Your task to perform on an android device: Do I have any events today? Image 0: 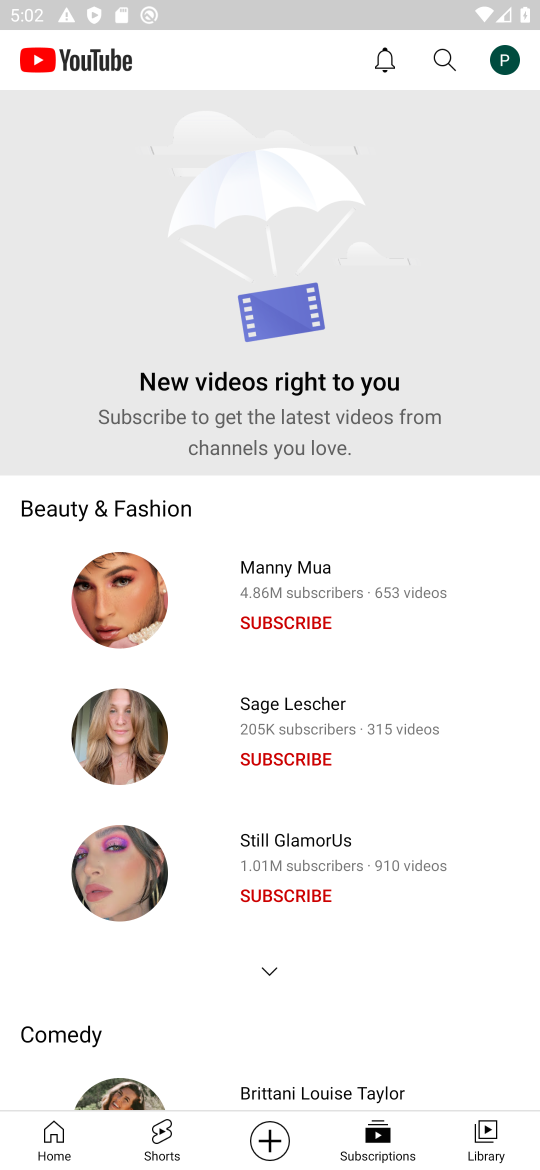
Step 0: press home button
Your task to perform on an android device: Do I have any events today? Image 1: 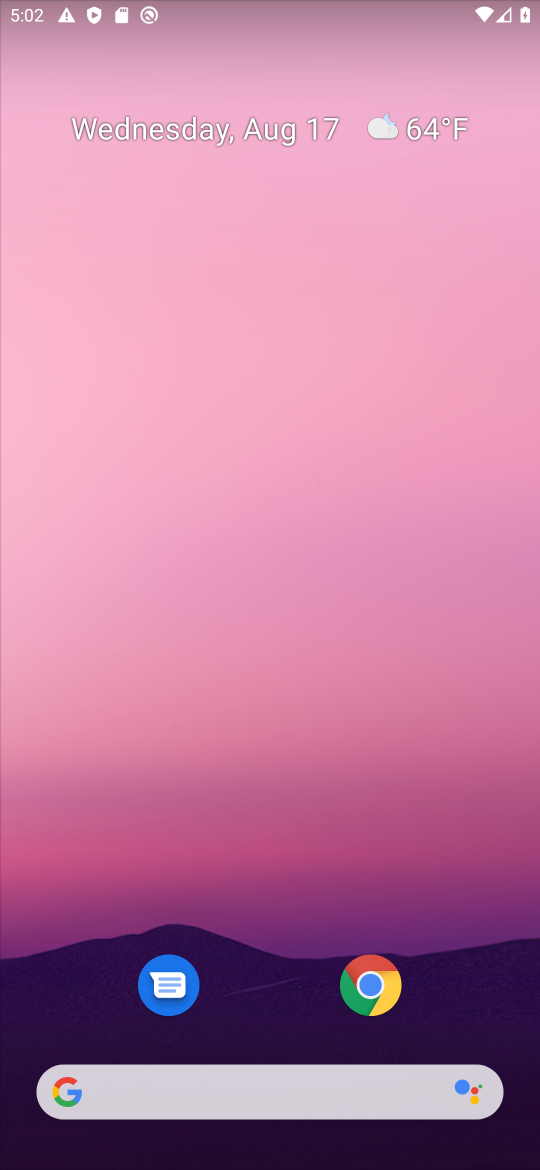
Step 1: drag from (233, 1090) to (241, 79)
Your task to perform on an android device: Do I have any events today? Image 2: 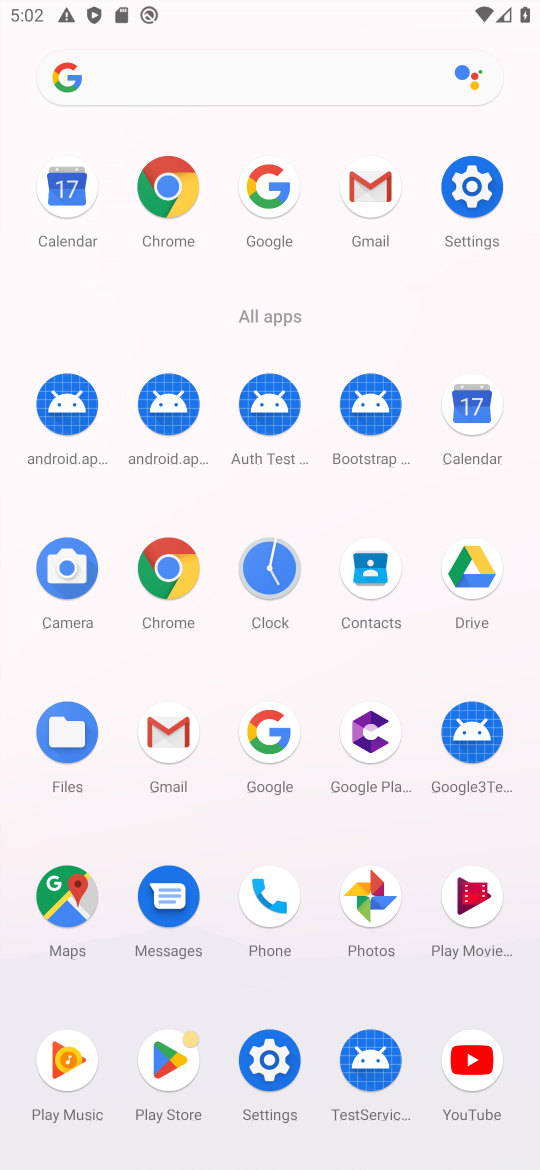
Step 2: click (71, 181)
Your task to perform on an android device: Do I have any events today? Image 3: 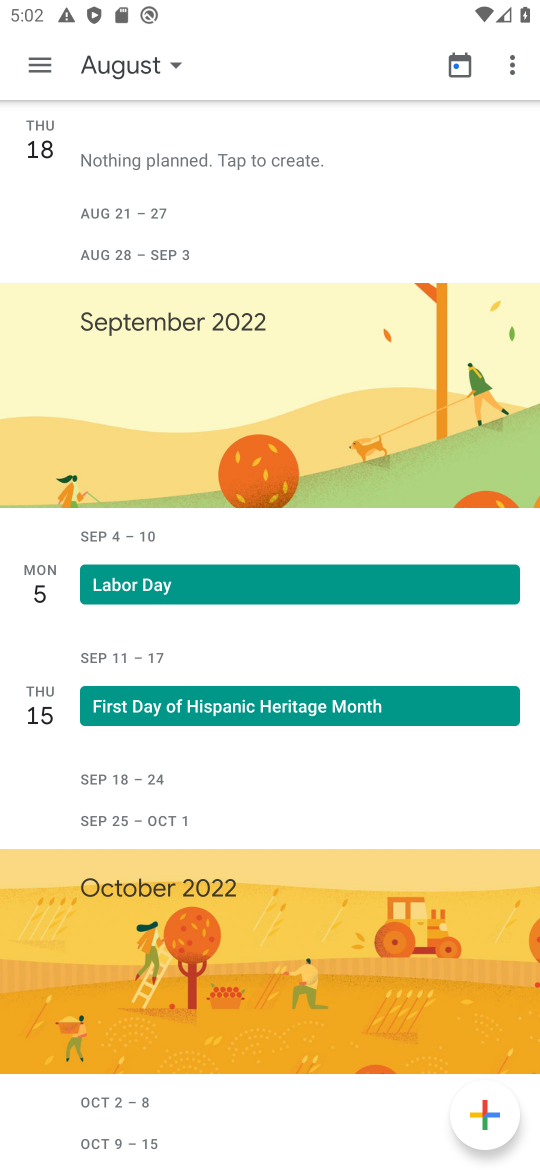
Step 3: click (465, 68)
Your task to perform on an android device: Do I have any events today? Image 4: 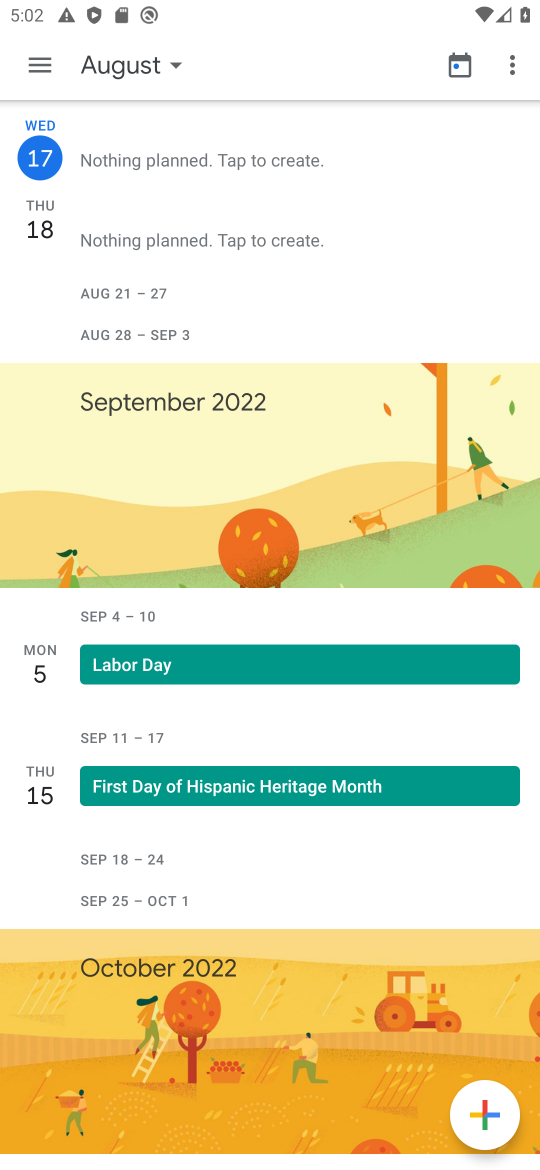
Step 4: click (164, 60)
Your task to perform on an android device: Do I have any events today? Image 5: 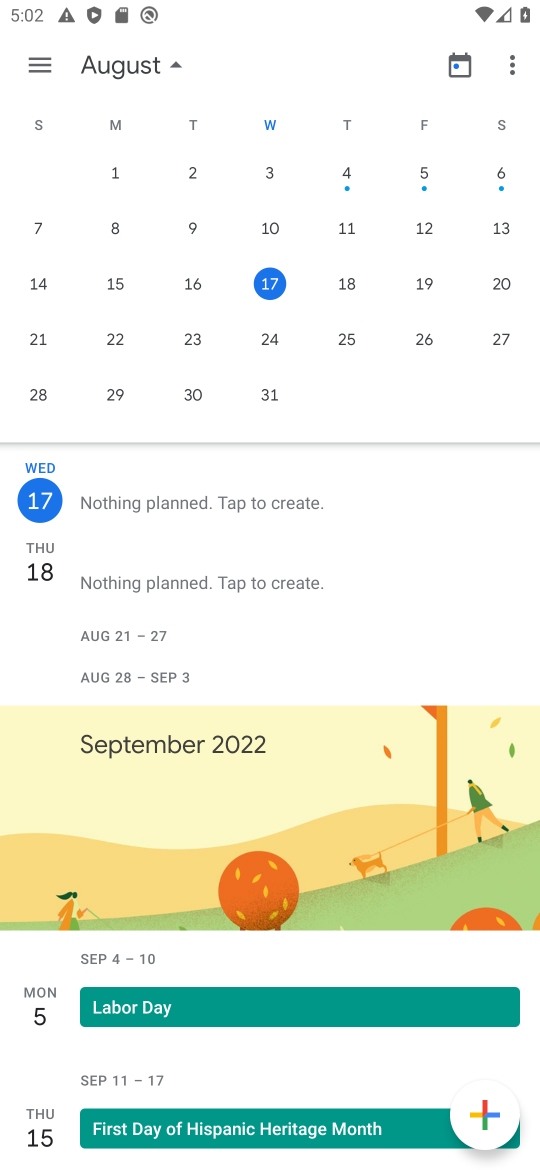
Step 5: click (30, 59)
Your task to perform on an android device: Do I have any events today? Image 6: 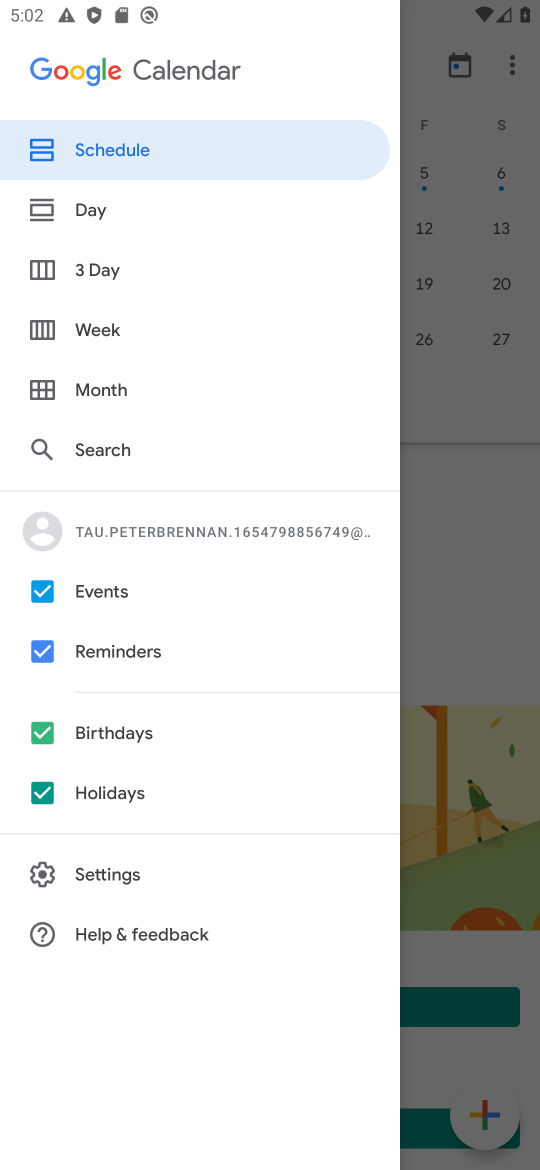
Step 6: click (81, 149)
Your task to perform on an android device: Do I have any events today? Image 7: 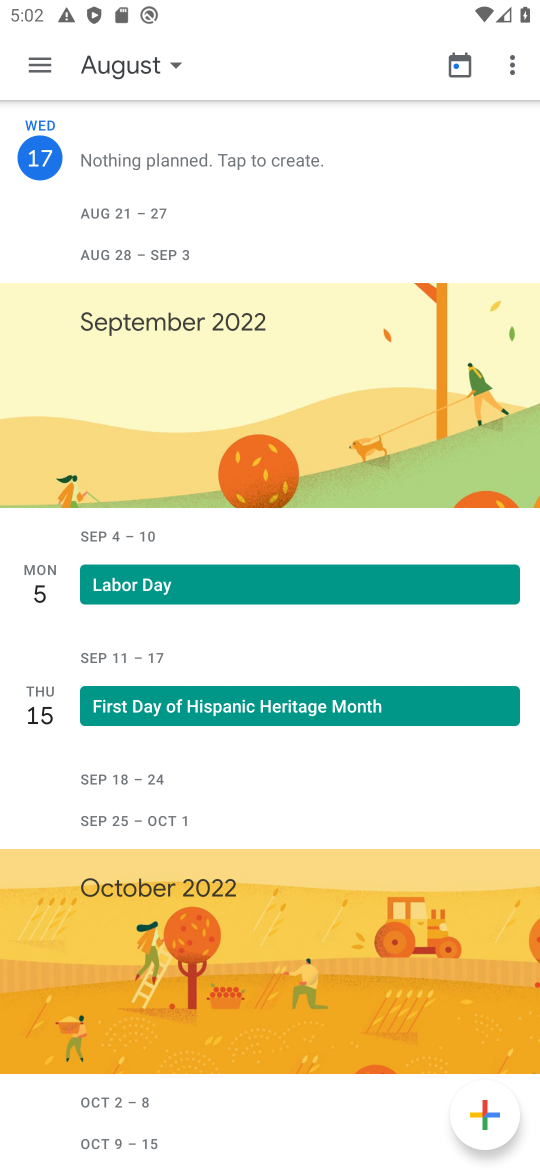
Step 7: task complete